Your task to perform on an android device: turn on improve location accuracy Image 0: 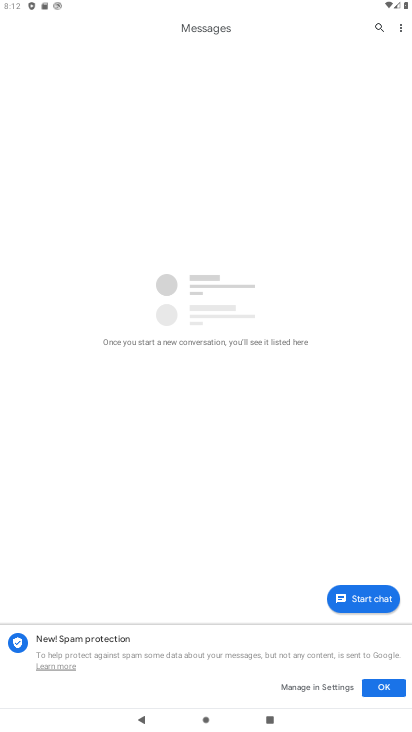
Step 0: press home button
Your task to perform on an android device: turn on improve location accuracy Image 1: 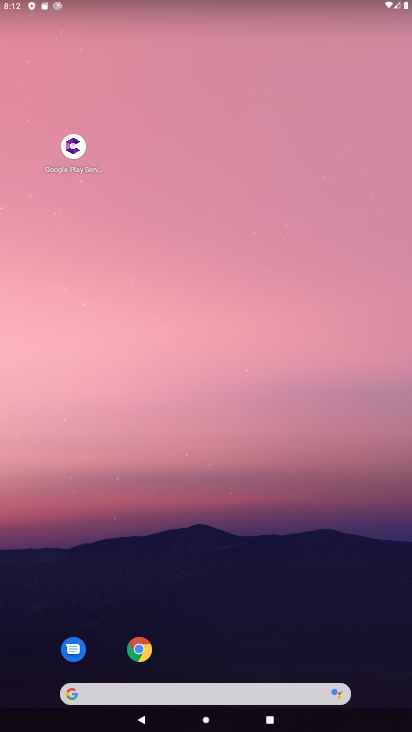
Step 1: drag from (194, 662) to (203, 132)
Your task to perform on an android device: turn on improve location accuracy Image 2: 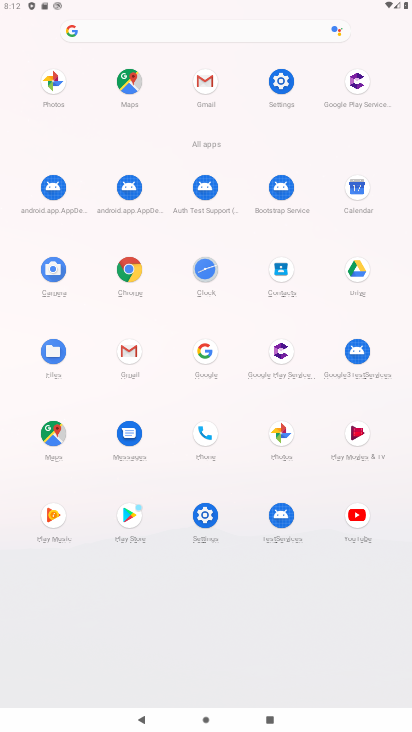
Step 2: click (283, 76)
Your task to perform on an android device: turn on improve location accuracy Image 3: 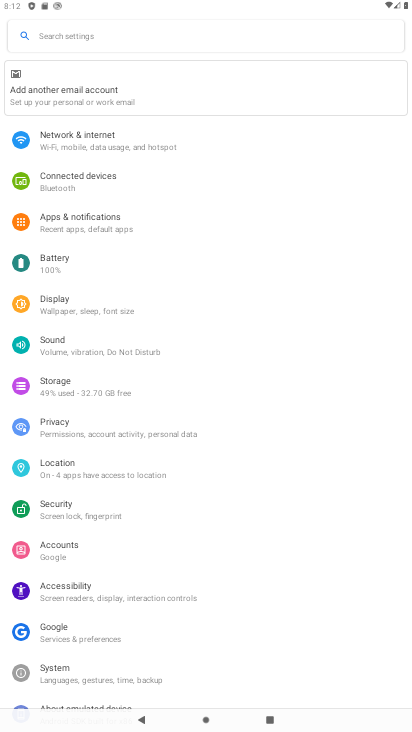
Step 3: click (77, 459)
Your task to perform on an android device: turn on improve location accuracy Image 4: 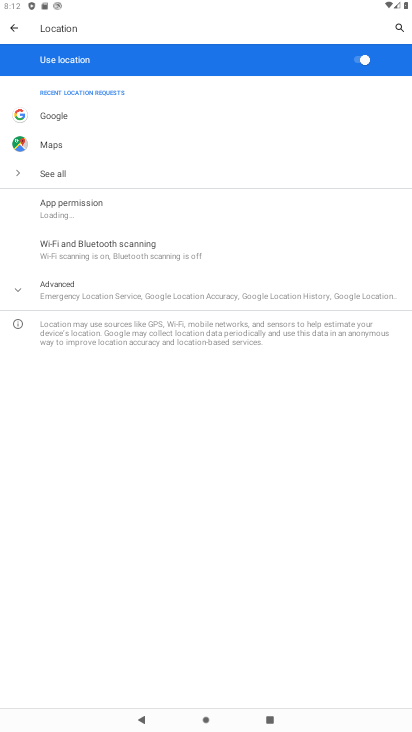
Step 4: click (83, 299)
Your task to perform on an android device: turn on improve location accuracy Image 5: 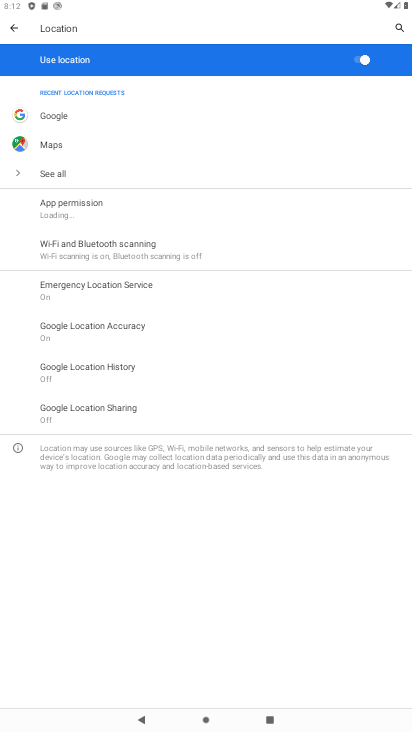
Step 5: click (92, 332)
Your task to perform on an android device: turn on improve location accuracy Image 6: 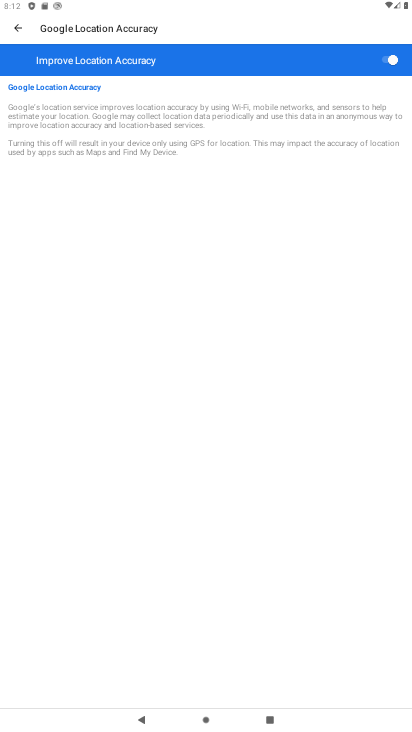
Step 6: task complete